Your task to perform on an android device: check battery use Image 0: 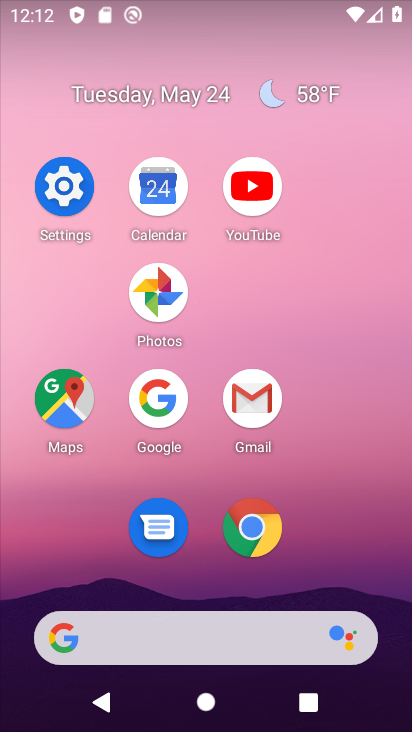
Step 0: click (46, 213)
Your task to perform on an android device: check battery use Image 1: 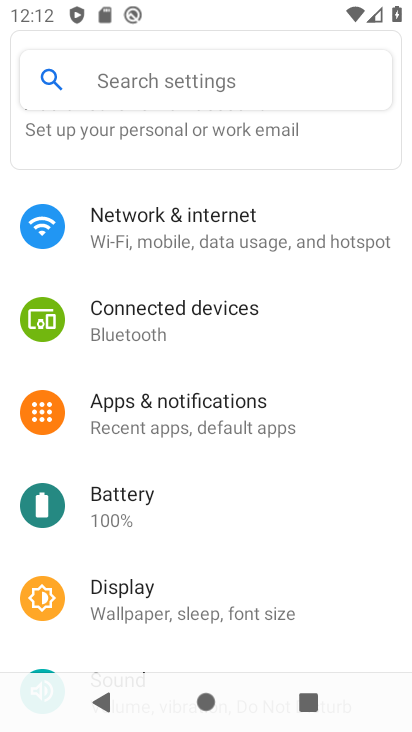
Step 1: click (233, 522)
Your task to perform on an android device: check battery use Image 2: 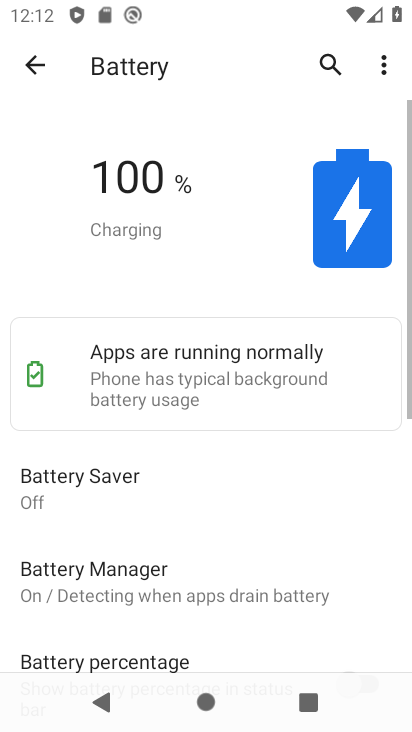
Step 2: click (386, 70)
Your task to perform on an android device: check battery use Image 3: 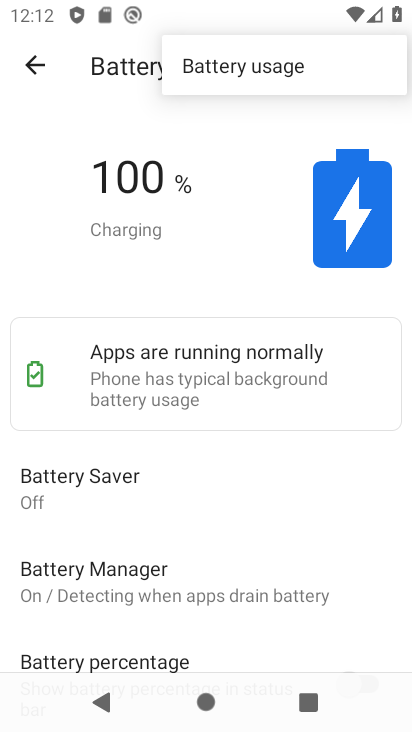
Step 3: click (333, 70)
Your task to perform on an android device: check battery use Image 4: 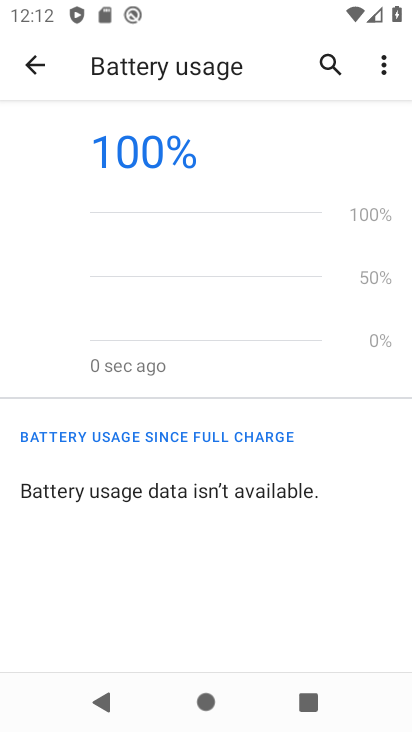
Step 4: task complete